Your task to perform on an android device: install app "Upside-Cash back on gas & food" Image 0: 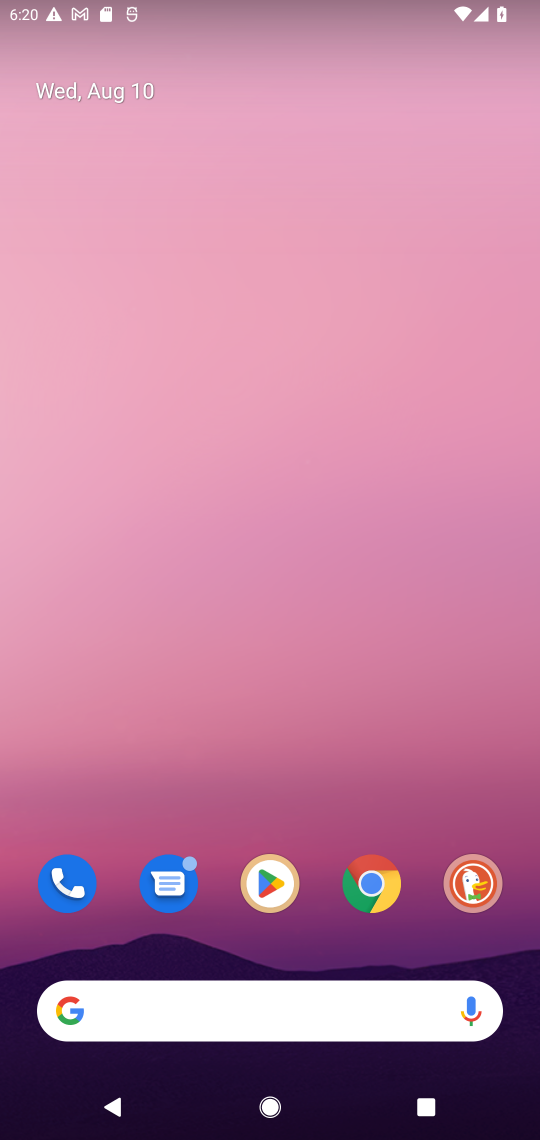
Step 0: click (282, 890)
Your task to perform on an android device: install app "Upside-Cash back on gas & food" Image 1: 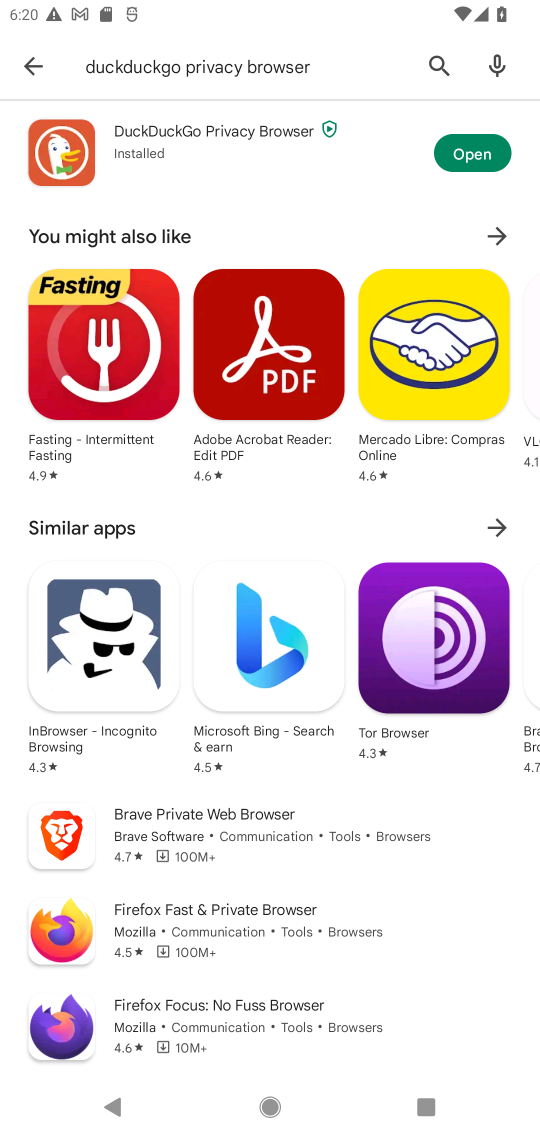
Step 1: click (437, 68)
Your task to perform on an android device: install app "Upside-Cash back on gas & food" Image 2: 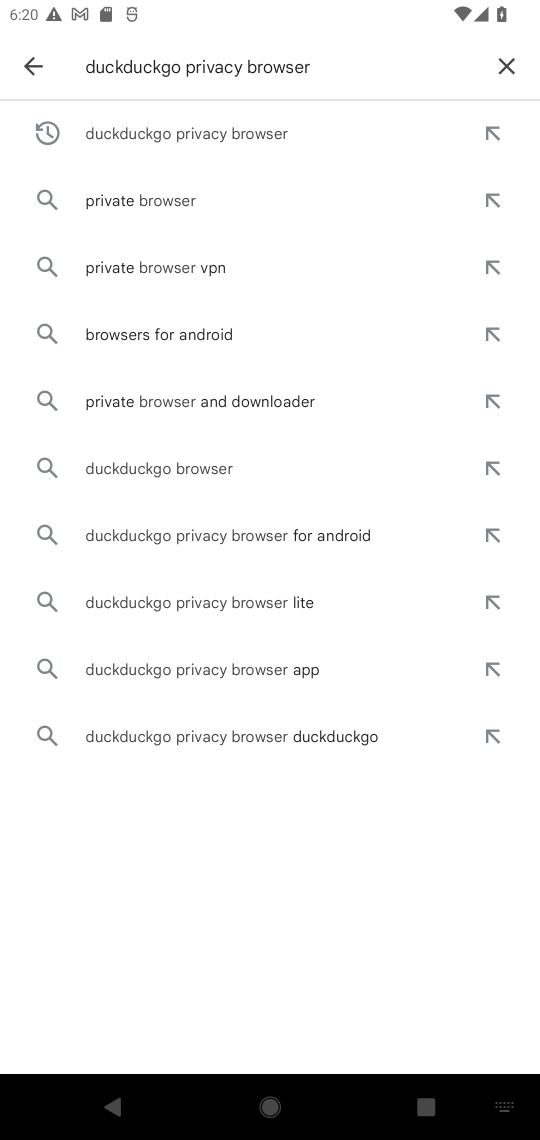
Step 2: click (504, 65)
Your task to perform on an android device: install app "Upside-Cash back on gas & food" Image 3: 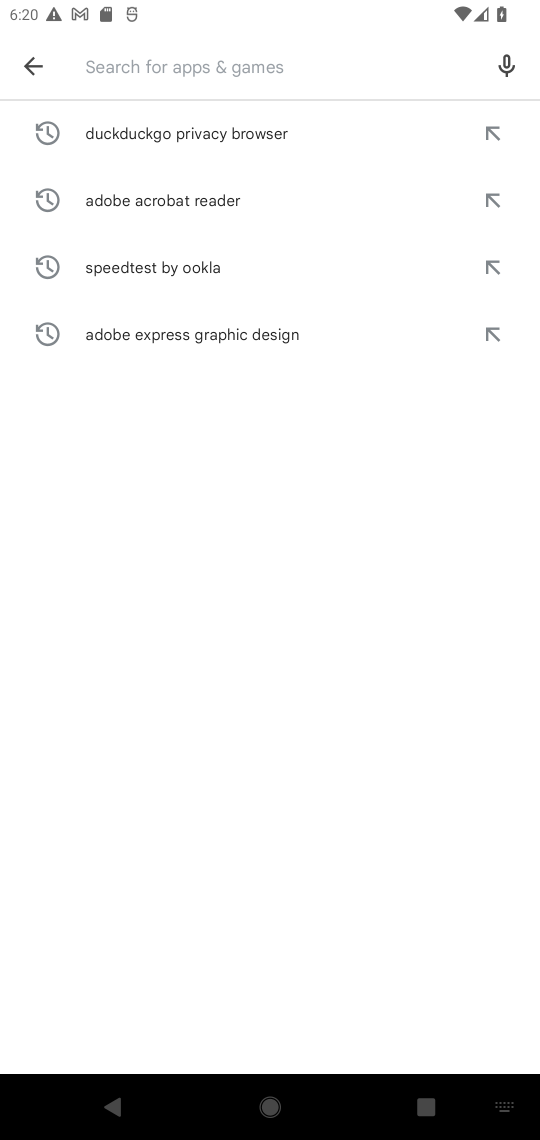
Step 3: type "Upside-Cash back on gas & food"
Your task to perform on an android device: install app "Upside-Cash back on gas & food" Image 4: 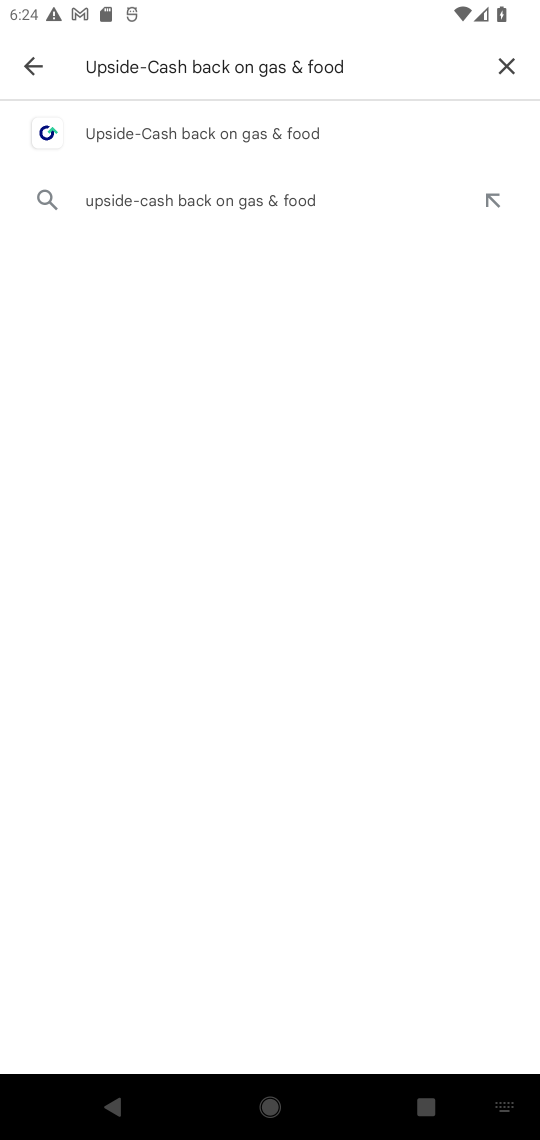
Step 4: click (310, 121)
Your task to perform on an android device: install app "Upside-Cash back on gas & food" Image 5: 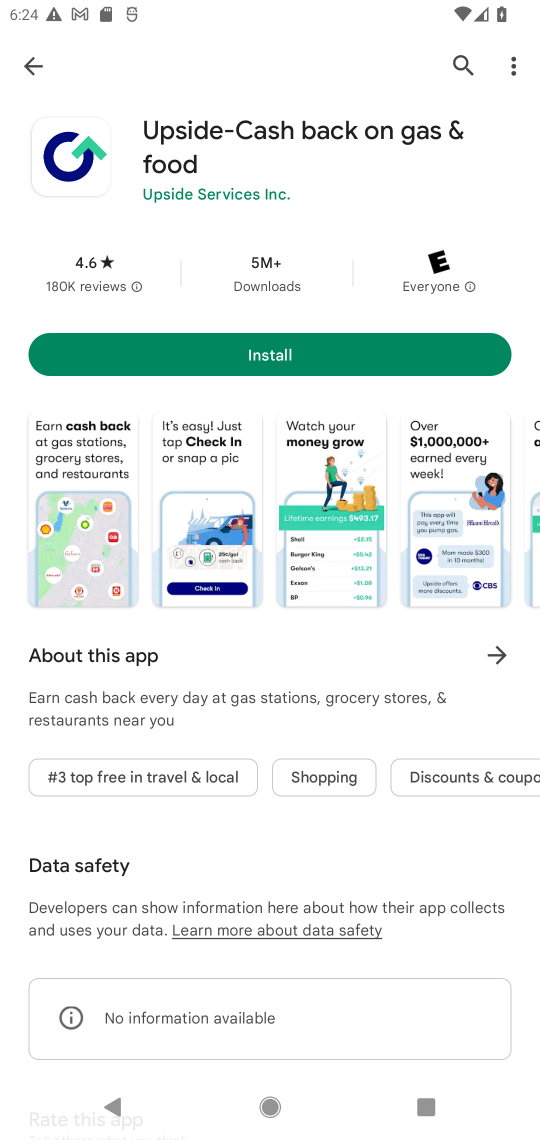
Step 5: click (413, 347)
Your task to perform on an android device: install app "Upside-Cash back on gas & food" Image 6: 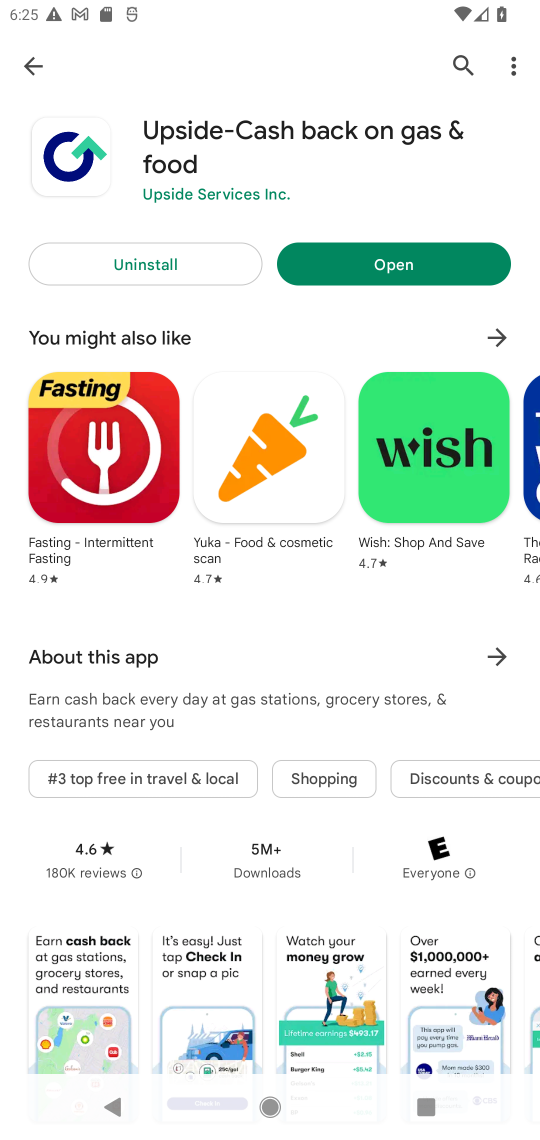
Step 6: task complete